Your task to perform on an android device: open chrome and create a bookmark for the current page Image 0: 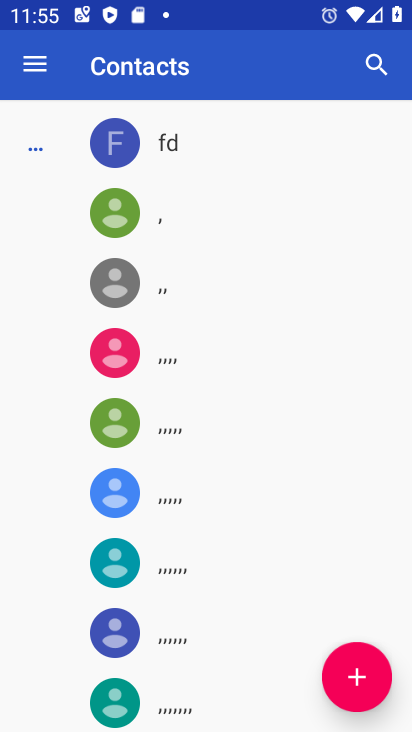
Step 0: press home button
Your task to perform on an android device: open chrome and create a bookmark for the current page Image 1: 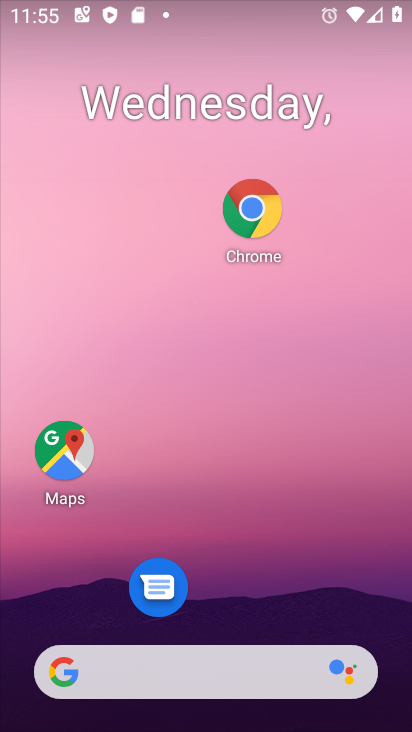
Step 1: click (248, 217)
Your task to perform on an android device: open chrome and create a bookmark for the current page Image 2: 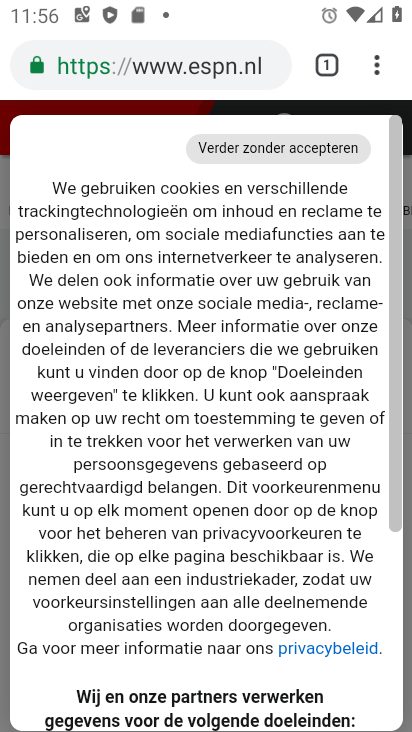
Step 2: click (375, 72)
Your task to perform on an android device: open chrome and create a bookmark for the current page Image 3: 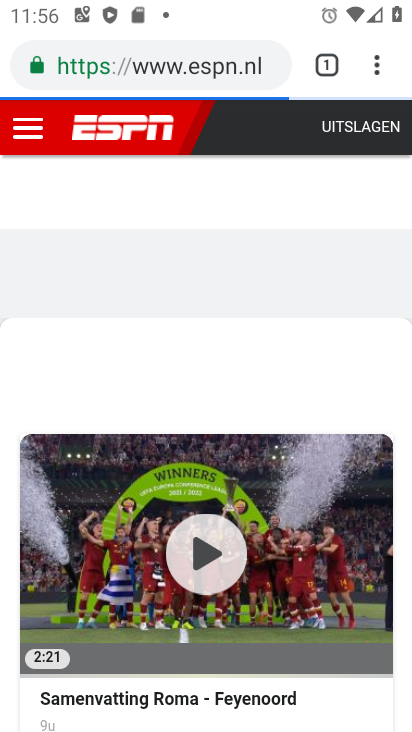
Step 3: click (377, 65)
Your task to perform on an android device: open chrome and create a bookmark for the current page Image 4: 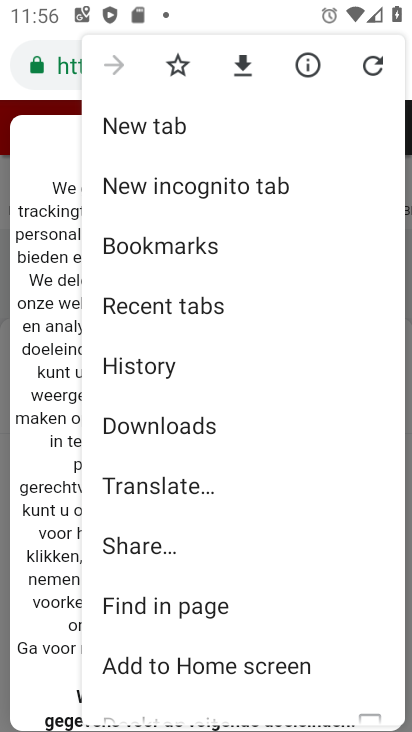
Step 4: click (176, 75)
Your task to perform on an android device: open chrome and create a bookmark for the current page Image 5: 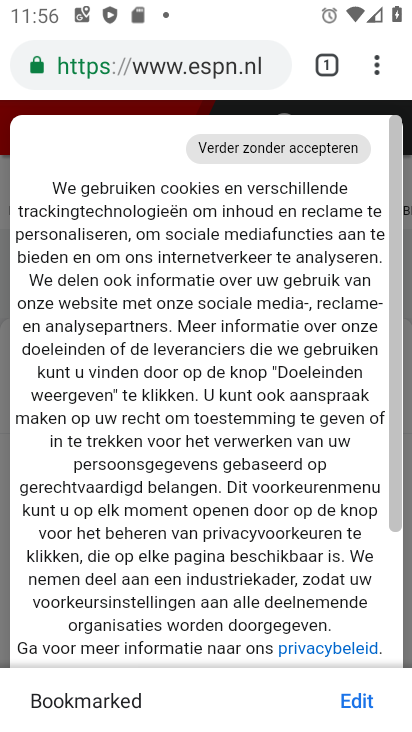
Step 5: task complete